Your task to perform on an android device: Open the stopwatch Image 0: 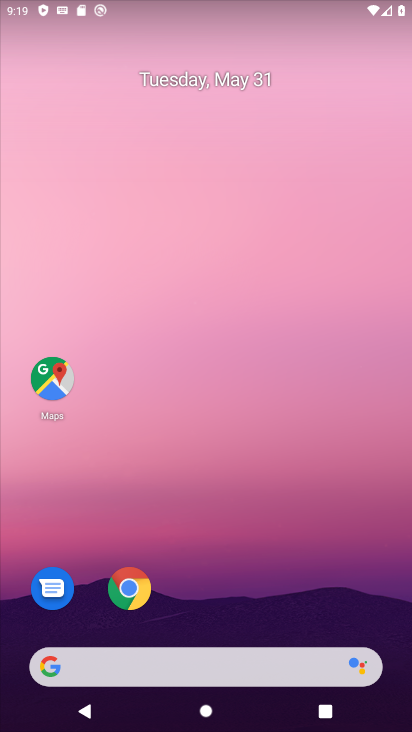
Step 0: drag from (273, 715) to (205, 82)
Your task to perform on an android device: Open the stopwatch Image 1: 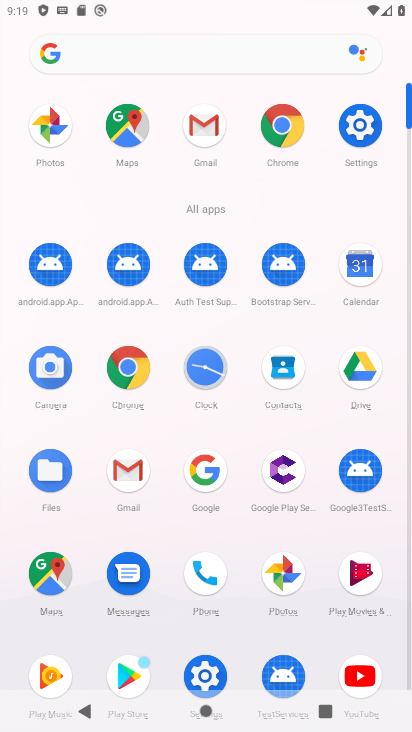
Step 1: click (207, 377)
Your task to perform on an android device: Open the stopwatch Image 2: 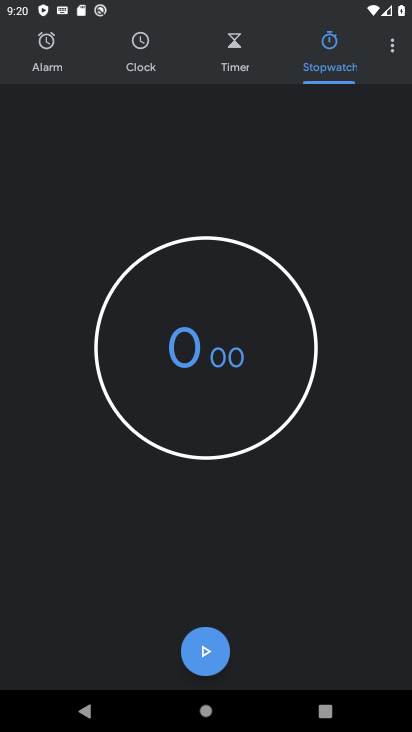
Step 2: task complete